Your task to perform on an android device: clear all cookies in the chrome app Image 0: 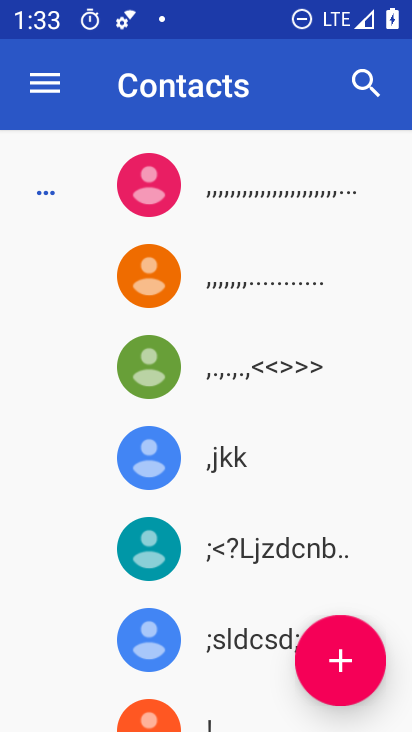
Step 0: press home button
Your task to perform on an android device: clear all cookies in the chrome app Image 1: 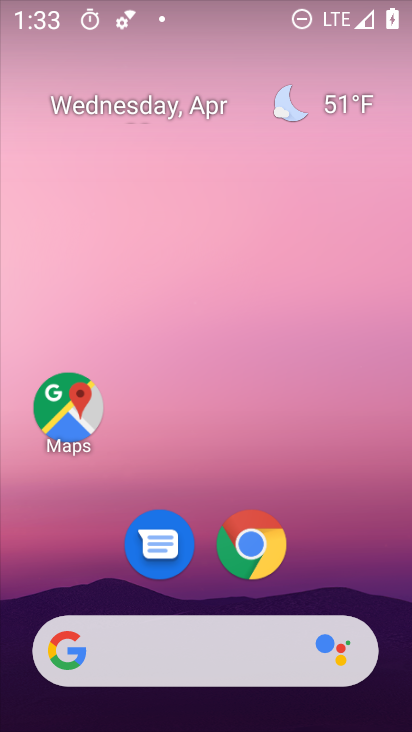
Step 1: drag from (315, 547) to (322, 112)
Your task to perform on an android device: clear all cookies in the chrome app Image 2: 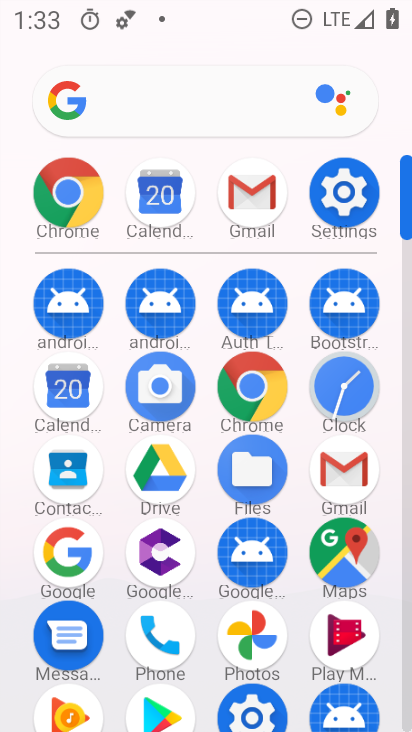
Step 2: click (254, 377)
Your task to perform on an android device: clear all cookies in the chrome app Image 3: 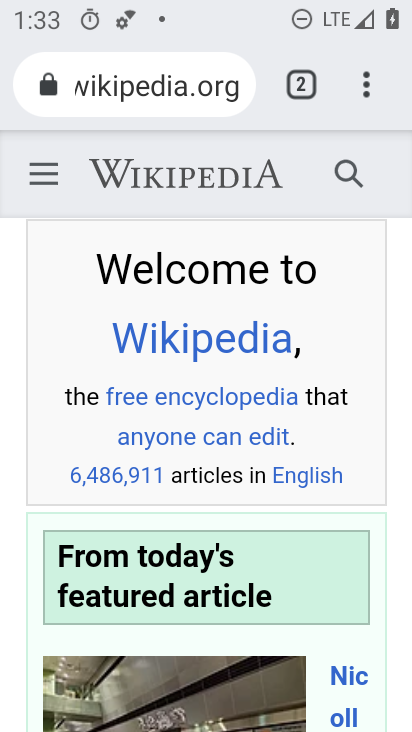
Step 3: click (367, 87)
Your task to perform on an android device: clear all cookies in the chrome app Image 4: 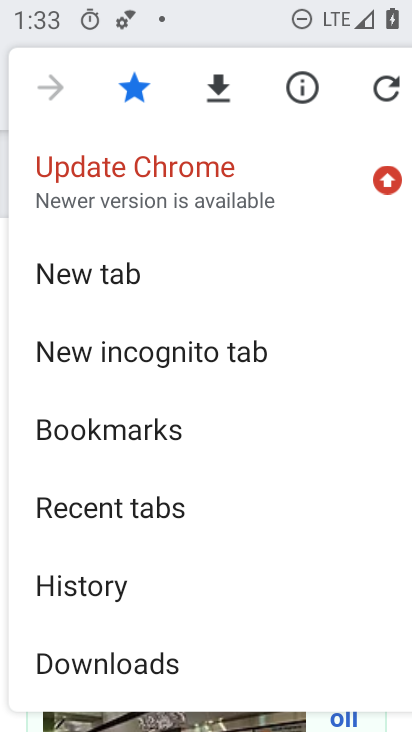
Step 4: drag from (279, 561) to (298, 307)
Your task to perform on an android device: clear all cookies in the chrome app Image 5: 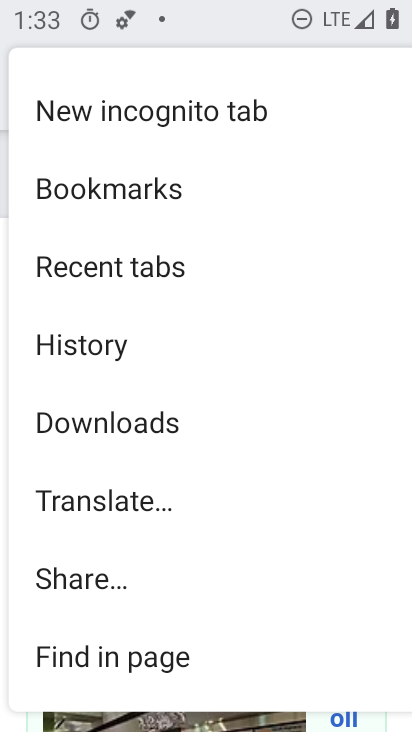
Step 5: drag from (262, 554) to (288, 407)
Your task to perform on an android device: clear all cookies in the chrome app Image 6: 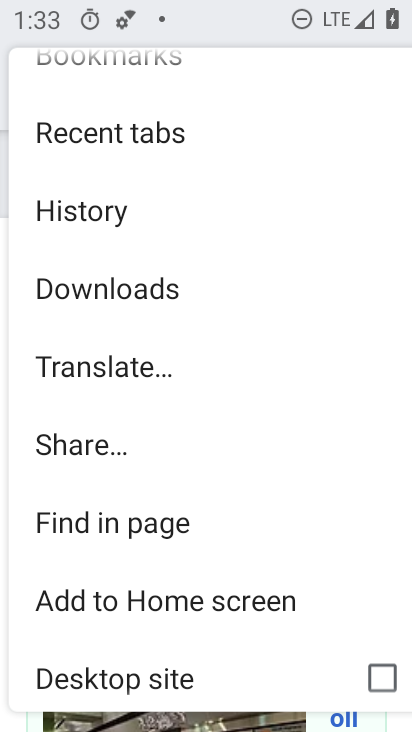
Step 6: drag from (314, 618) to (322, 437)
Your task to perform on an android device: clear all cookies in the chrome app Image 7: 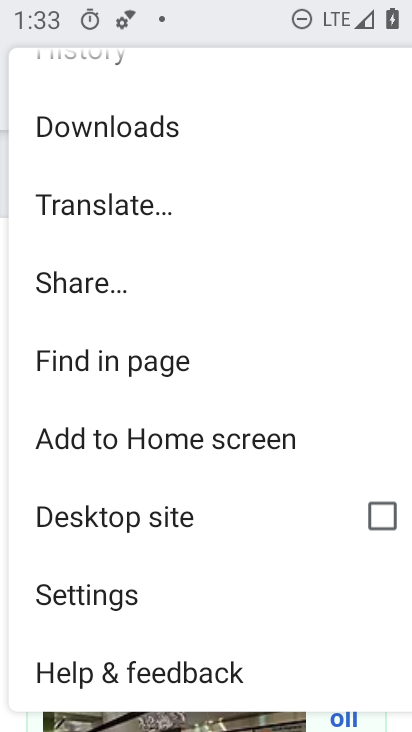
Step 7: click (93, 602)
Your task to perform on an android device: clear all cookies in the chrome app Image 8: 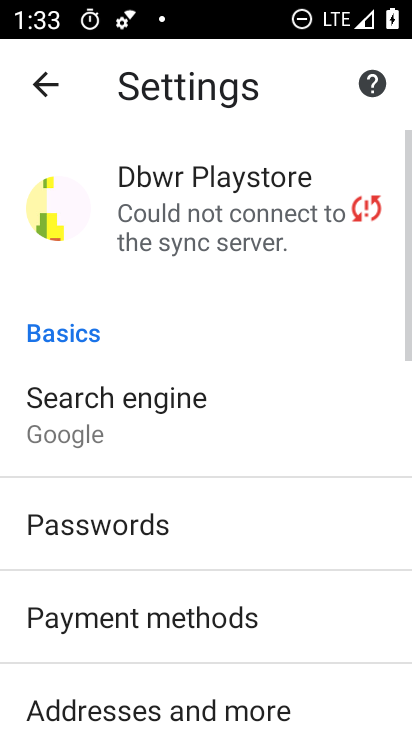
Step 8: drag from (318, 621) to (335, 485)
Your task to perform on an android device: clear all cookies in the chrome app Image 9: 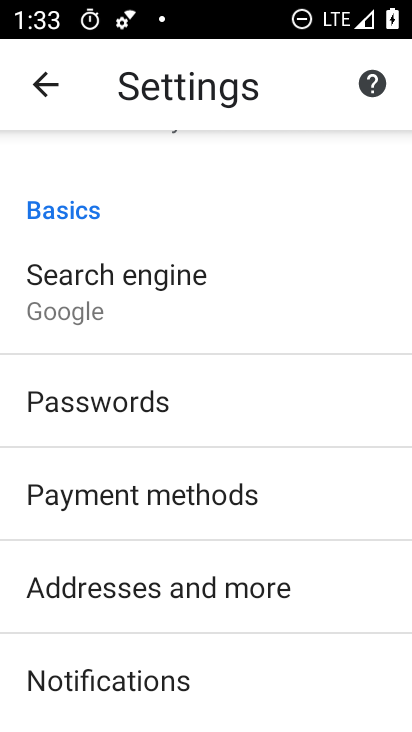
Step 9: drag from (317, 629) to (333, 492)
Your task to perform on an android device: clear all cookies in the chrome app Image 10: 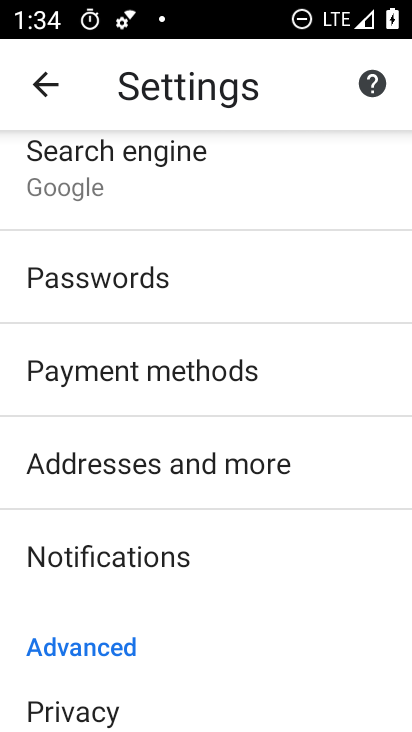
Step 10: drag from (292, 627) to (307, 477)
Your task to perform on an android device: clear all cookies in the chrome app Image 11: 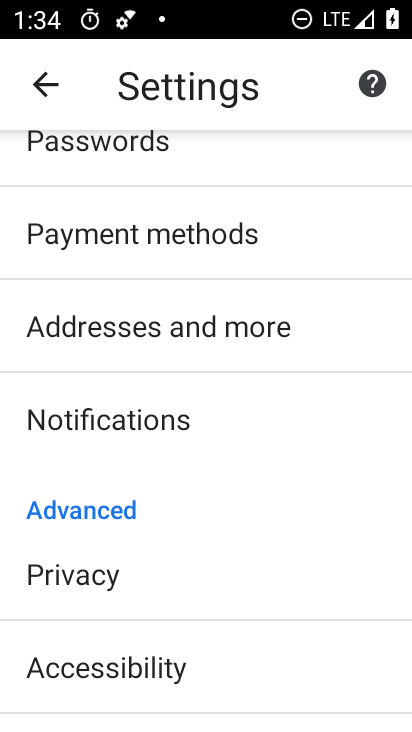
Step 11: drag from (311, 628) to (324, 483)
Your task to perform on an android device: clear all cookies in the chrome app Image 12: 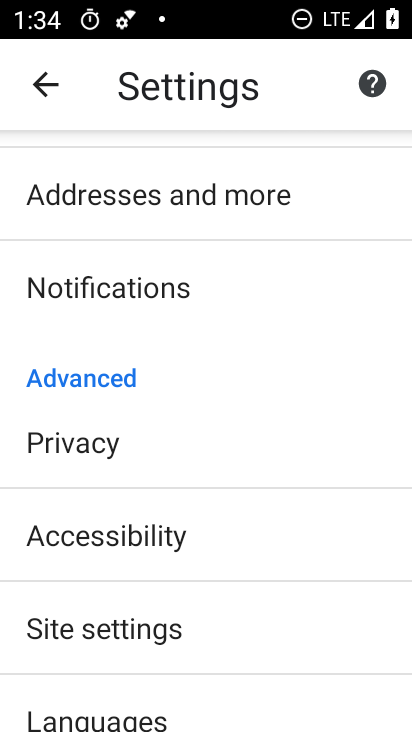
Step 12: drag from (309, 646) to (313, 493)
Your task to perform on an android device: clear all cookies in the chrome app Image 13: 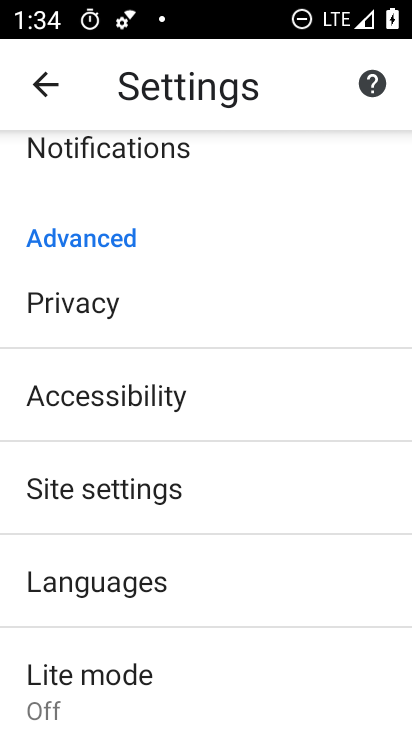
Step 13: drag from (320, 621) to (354, 334)
Your task to perform on an android device: clear all cookies in the chrome app Image 14: 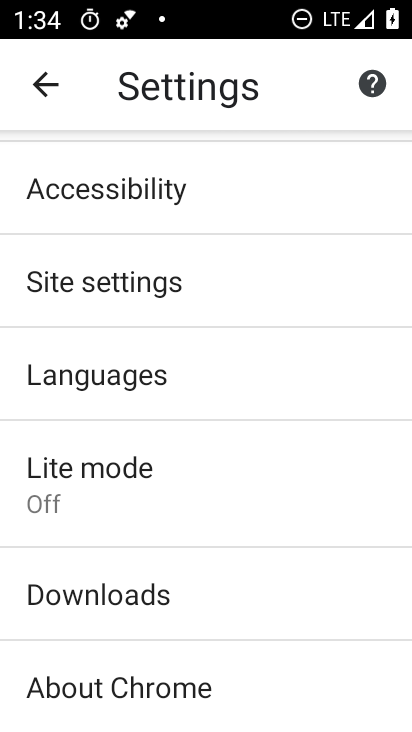
Step 14: drag from (242, 251) to (237, 442)
Your task to perform on an android device: clear all cookies in the chrome app Image 15: 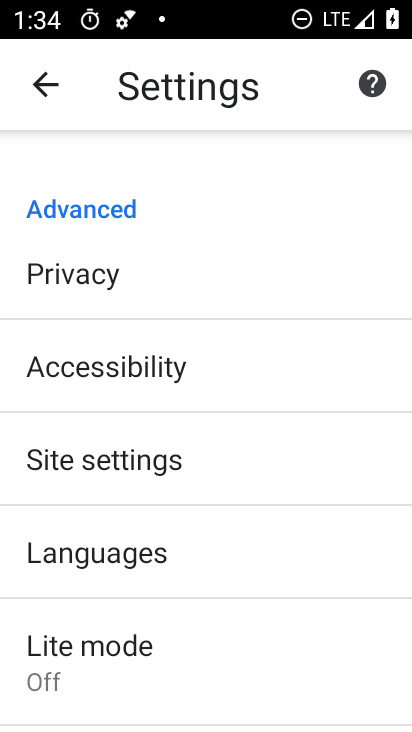
Step 15: click (90, 268)
Your task to perform on an android device: clear all cookies in the chrome app Image 16: 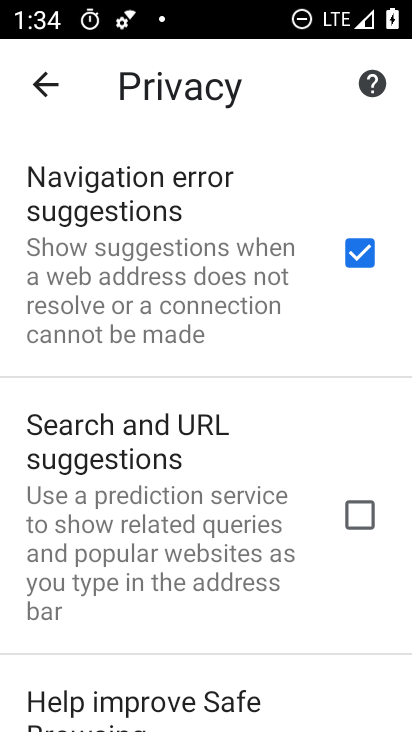
Step 16: drag from (305, 527) to (312, 371)
Your task to perform on an android device: clear all cookies in the chrome app Image 17: 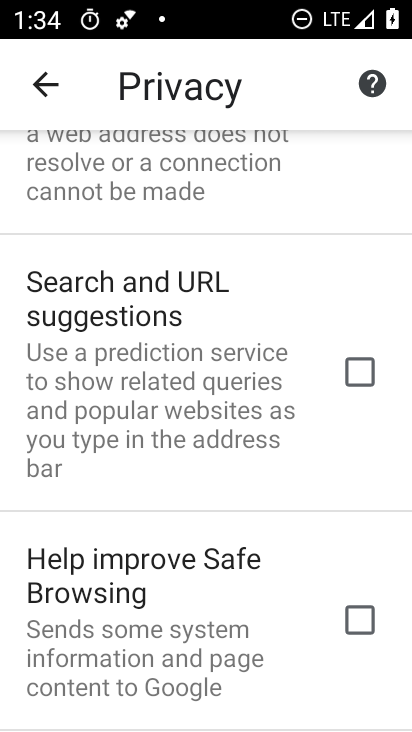
Step 17: drag from (302, 534) to (312, 395)
Your task to perform on an android device: clear all cookies in the chrome app Image 18: 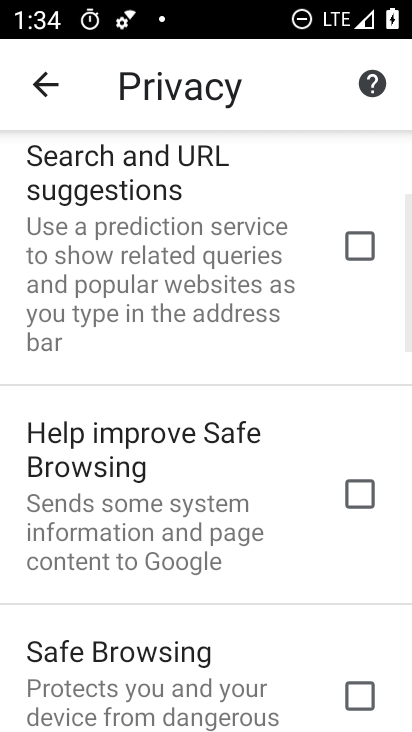
Step 18: drag from (290, 574) to (287, 399)
Your task to perform on an android device: clear all cookies in the chrome app Image 19: 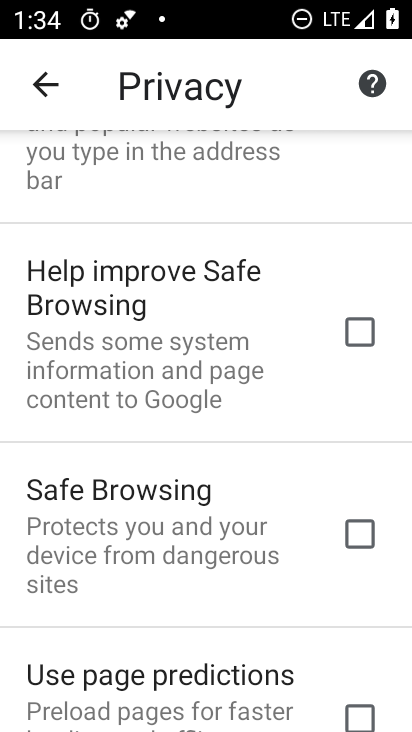
Step 19: drag from (282, 629) to (300, 436)
Your task to perform on an android device: clear all cookies in the chrome app Image 20: 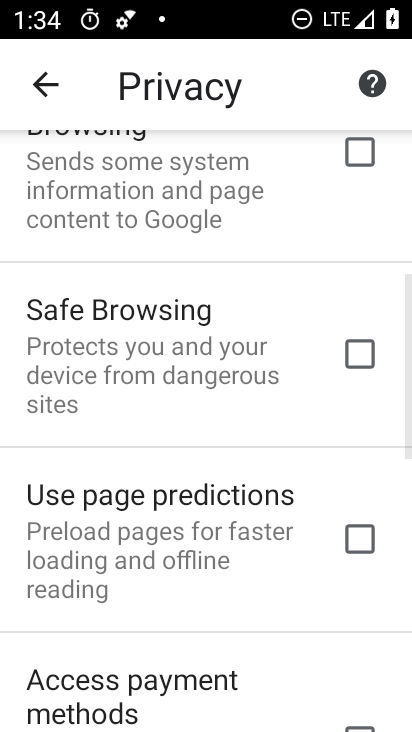
Step 20: drag from (295, 647) to (309, 410)
Your task to perform on an android device: clear all cookies in the chrome app Image 21: 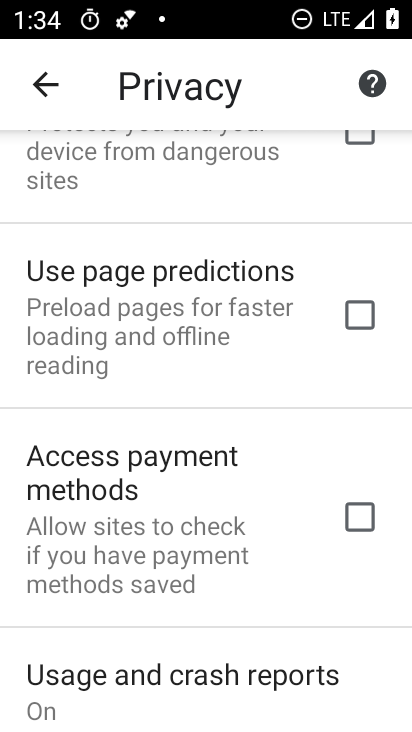
Step 21: drag from (298, 606) to (306, 385)
Your task to perform on an android device: clear all cookies in the chrome app Image 22: 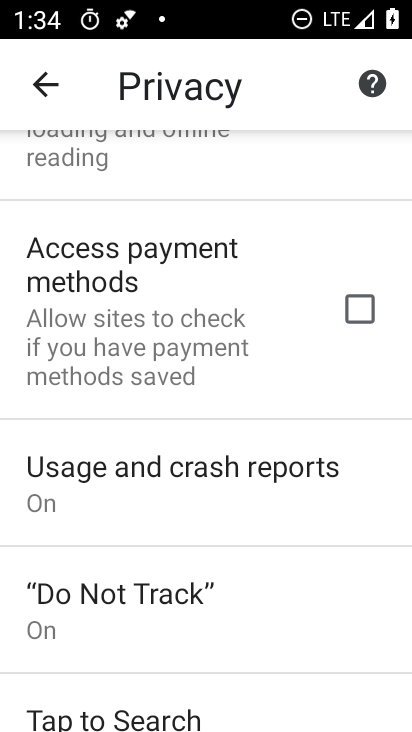
Step 22: drag from (259, 629) to (279, 382)
Your task to perform on an android device: clear all cookies in the chrome app Image 23: 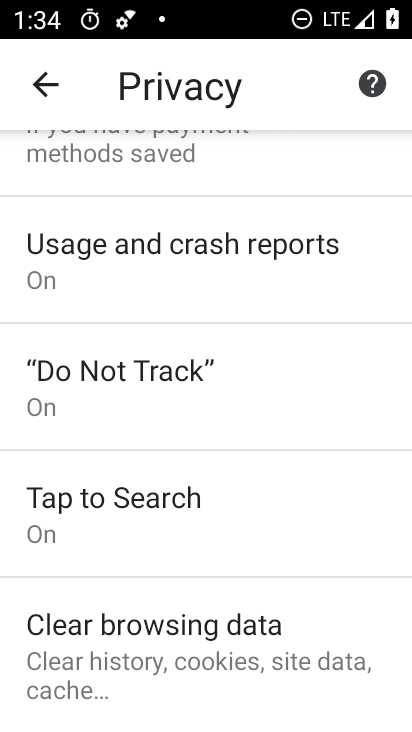
Step 23: click (227, 645)
Your task to perform on an android device: clear all cookies in the chrome app Image 24: 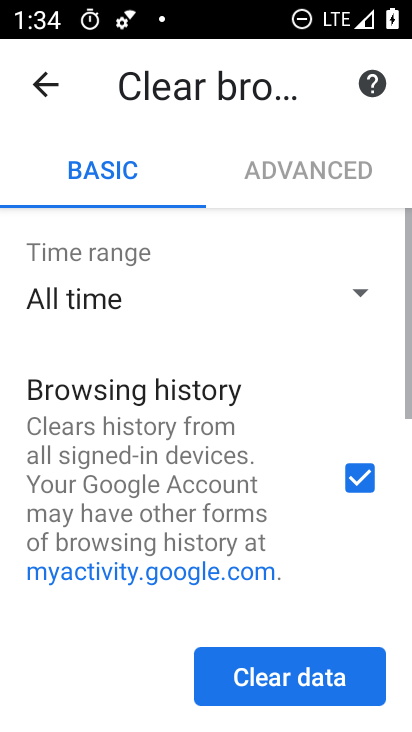
Step 24: click (241, 660)
Your task to perform on an android device: clear all cookies in the chrome app Image 25: 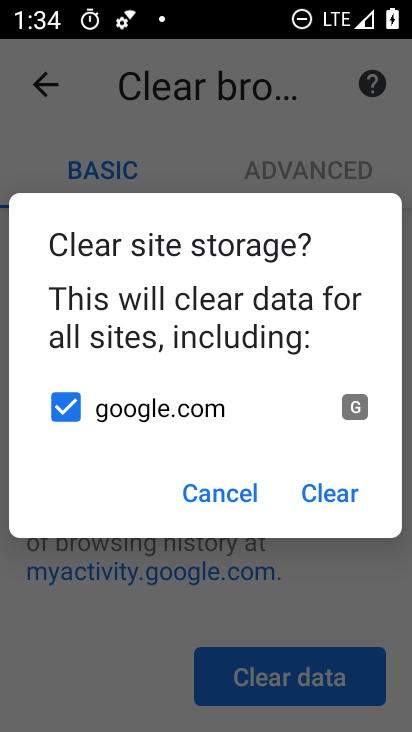
Step 25: click (333, 494)
Your task to perform on an android device: clear all cookies in the chrome app Image 26: 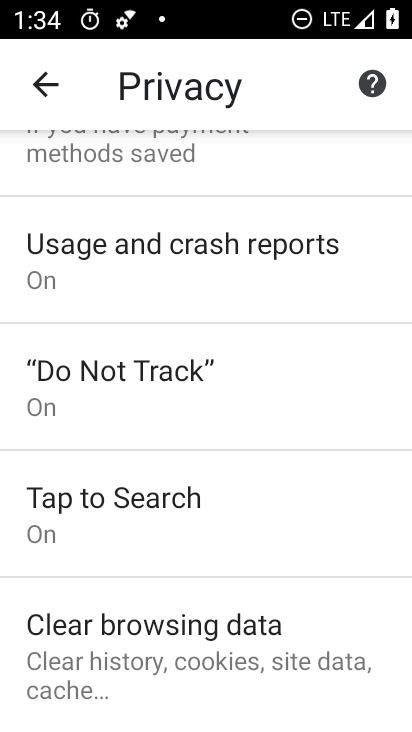
Step 26: task complete